Your task to perform on an android device: Search for vegetarian restaurants on Maps Image 0: 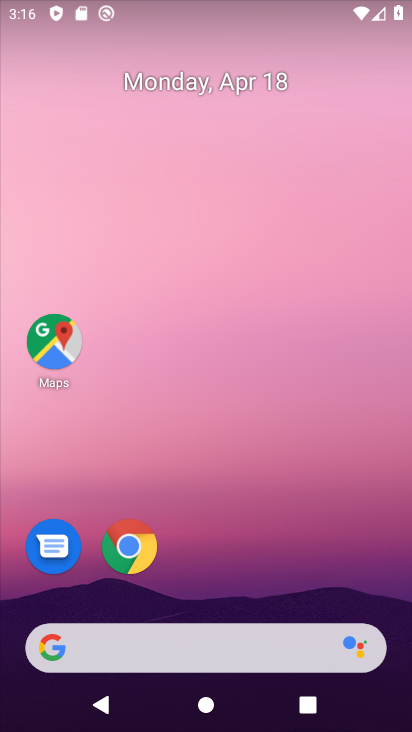
Step 0: click (309, 112)
Your task to perform on an android device: Search for vegetarian restaurants on Maps Image 1: 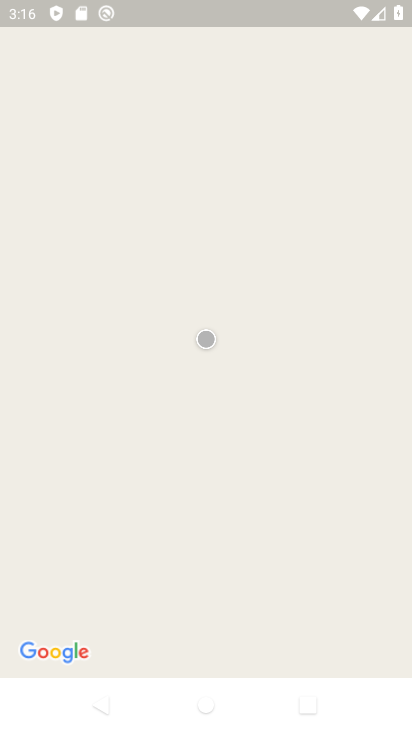
Step 1: press home button
Your task to perform on an android device: Search for vegetarian restaurants on Maps Image 2: 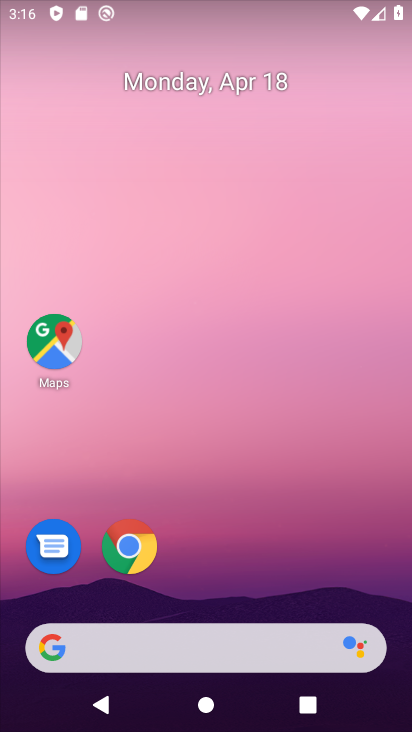
Step 2: drag from (282, 579) to (311, 206)
Your task to perform on an android device: Search for vegetarian restaurants on Maps Image 3: 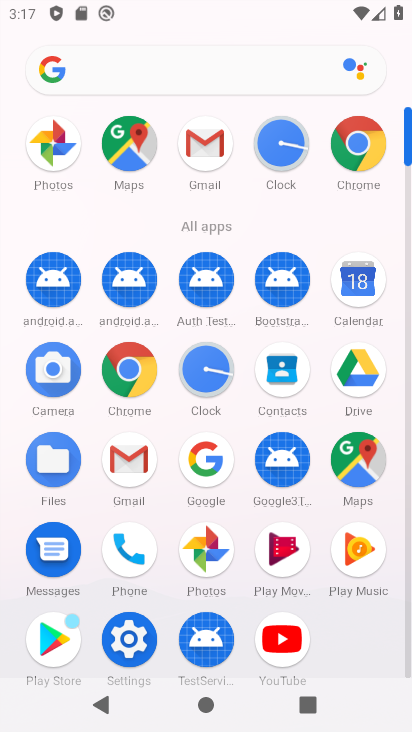
Step 3: click (134, 145)
Your task to perform on an android device: Search for vegetarian restaurants on Maps Image 4: 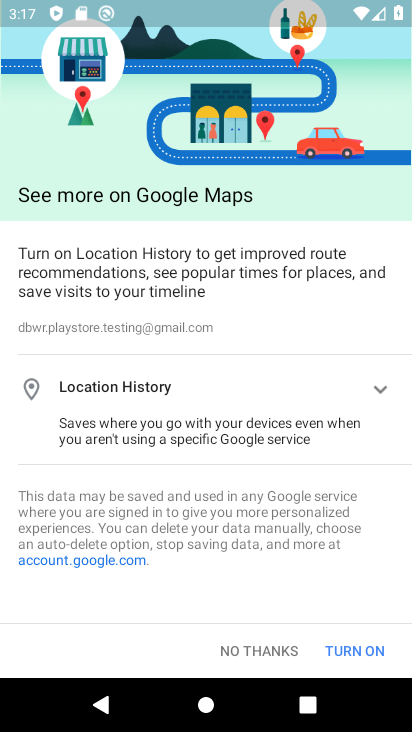
Step 4: click (272, 646)
Your task to perform on an android device: Search for vegetarian restaurants on Maps Image 5: 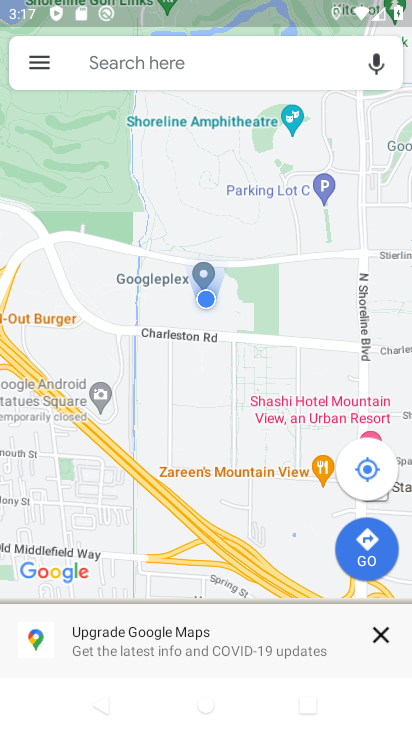
Step 5: click (211, 59)
Your task to perform on an android device: Search for vegetarian restaurants on Maps Image 6: 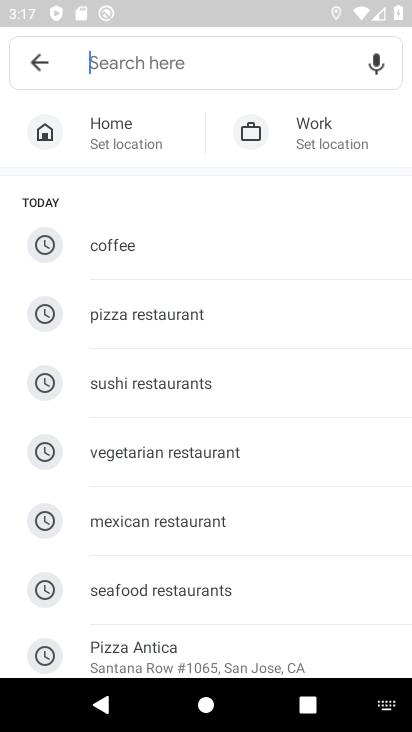
Step 6: type "vegetarian restaurants"
Your task to perform on an android device: Search for vegetarian restaurants on Maps Image 7: 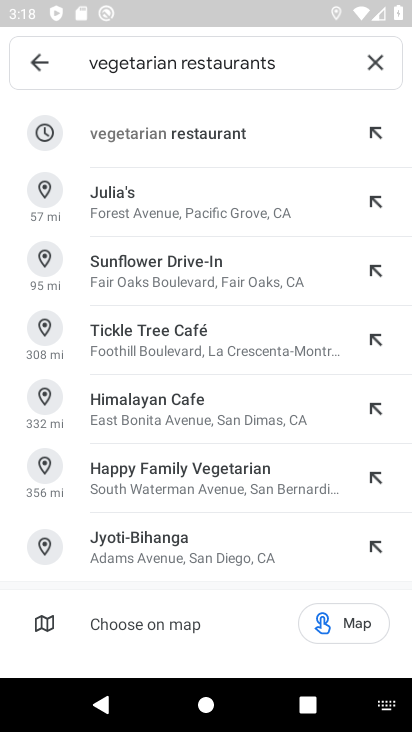
Step 7: press enter
Your task to perform on an android device: Search for vegetarian restaurants on Maps Image 8: 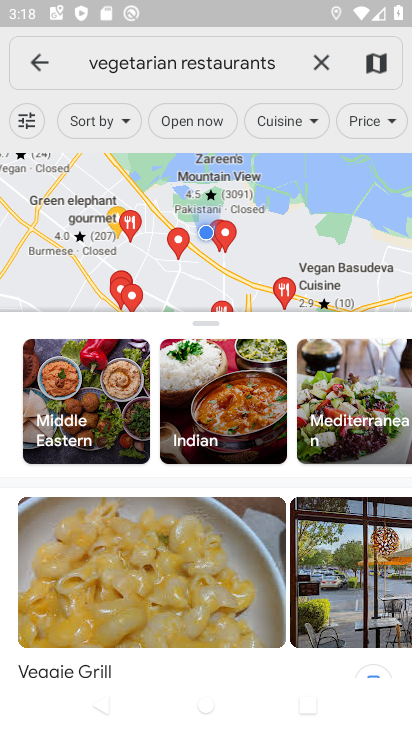
Step 8: task complete